Your task to perform on an android device: What's on my calendar today? Image 0: 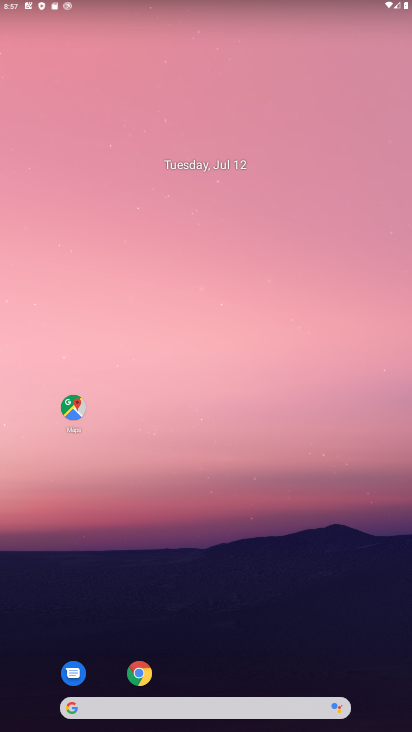
Step 0: drag from (225, 659) to (240, 246)
Your task to perform on an android device: What's on my calendar today? Image 1: 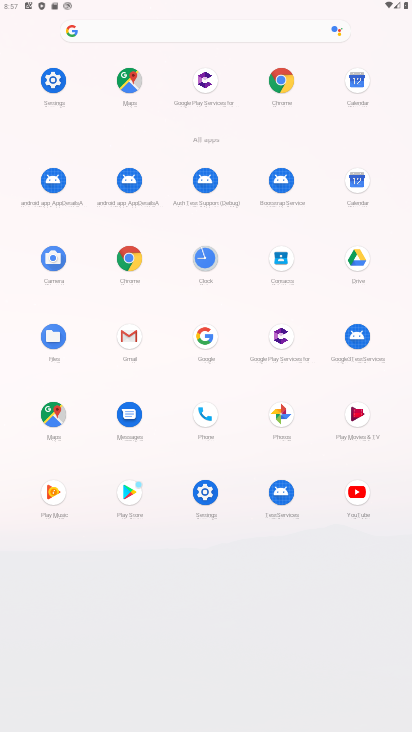
Step 1: click (353, 183)
Your task to perform on an android device: What's on my calendar today? Image 2: 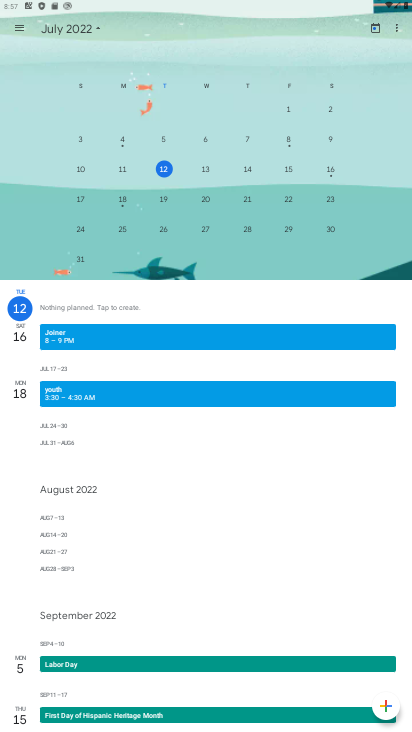
Step 2: task complete